Your task to perform on an android device: turn off javascript in the chrome app Image 0: 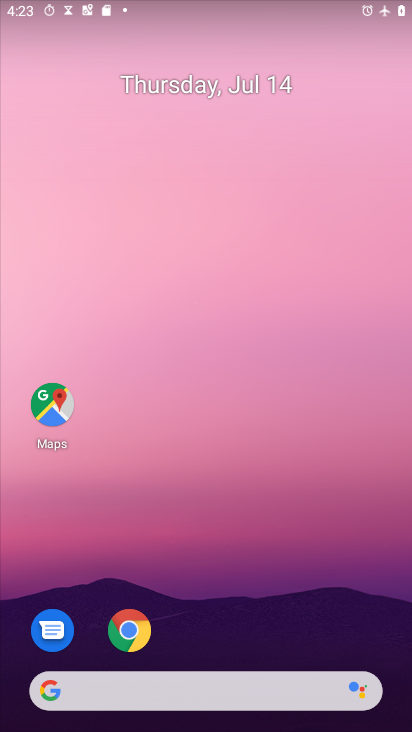
Step 0: click (134, 629)
Your task to perform on an android device: turn off javascript in the chrome app Image 1: 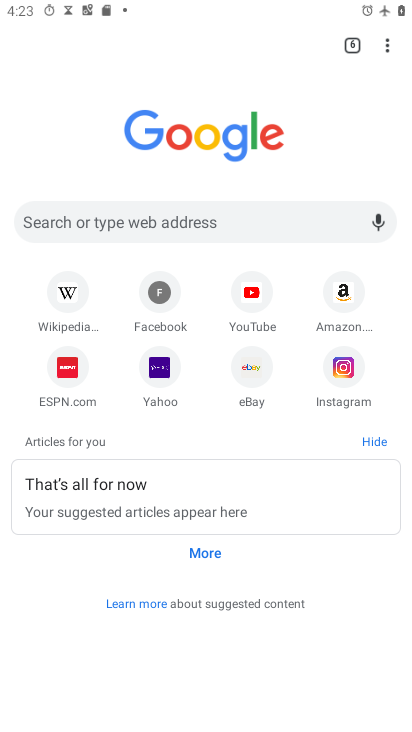
Step 1: click (387, 43)
Your task to perform on an android device: turn off javascript in the chrome app Image 2: 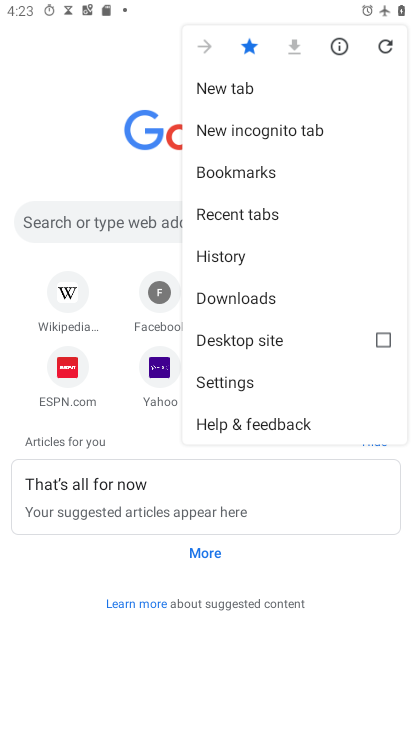
Step 2: click (219, 384)
Your task to perform on an android device: turn off javascript in the chrome app Image 3: 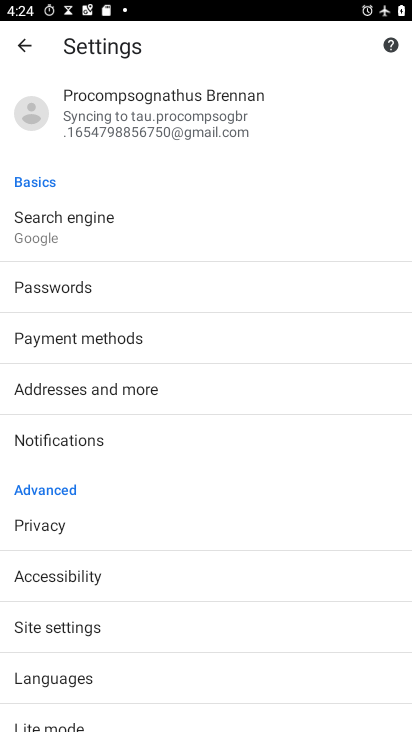
Step 3: click (63, 626)
Your task to perform on an android device: turn off javascript in the chrome app Image 4: 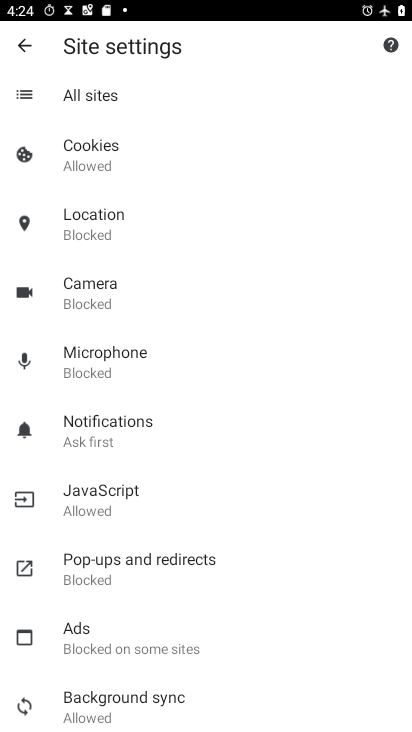
Step 4: click (73, 496)
Your task to perform on an android device: turn off javascript in the chrome app Image 5: 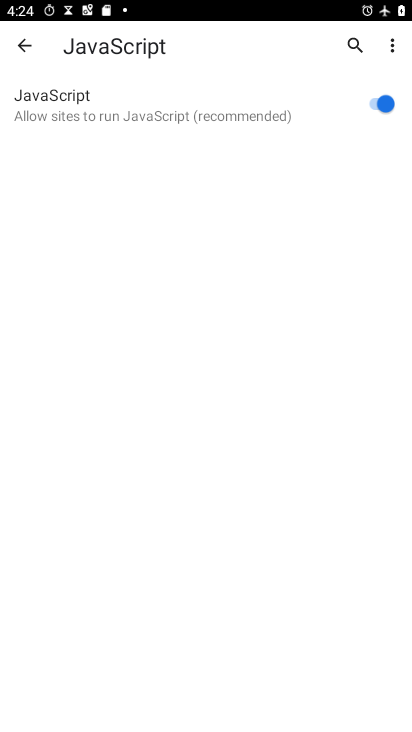
Step 5: click (373, 105)
Your task to perform on an android device: turn off javascript in the chrome app Image 6: 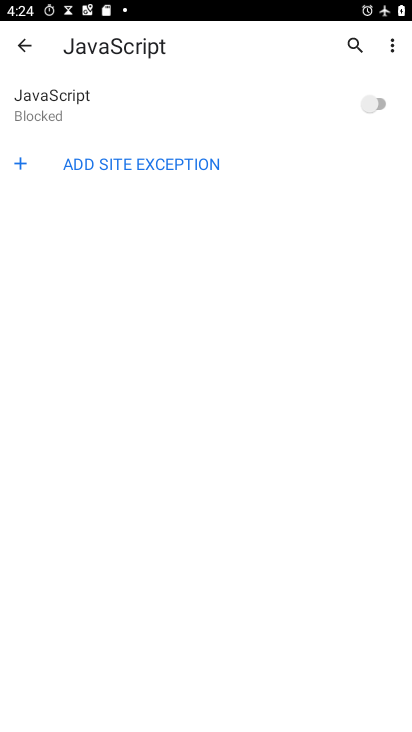
Step 6: task complete